Your task to perform on an android device: toggle airplane mode Image 0: 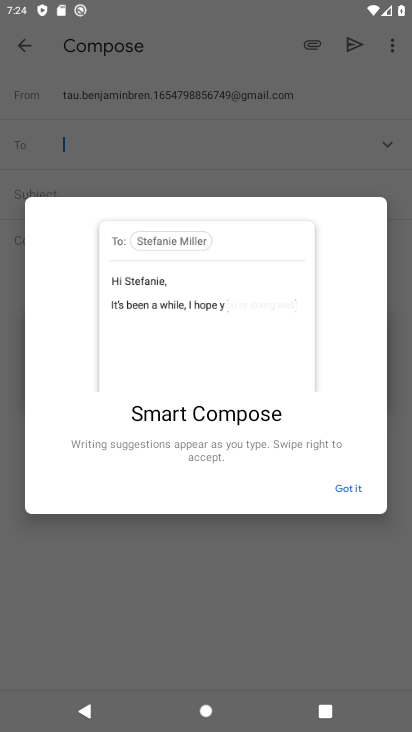
Step 0: press home button
Your task to perform on an android device: toggle airplane mode Image 1: 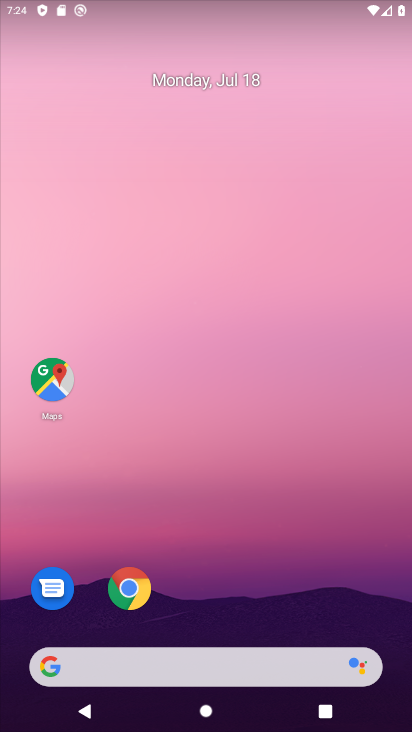
Step 1: drag from (217, 598) to (222, 257)
Your task to perform on an android device: toggle airplane mode Image 2: 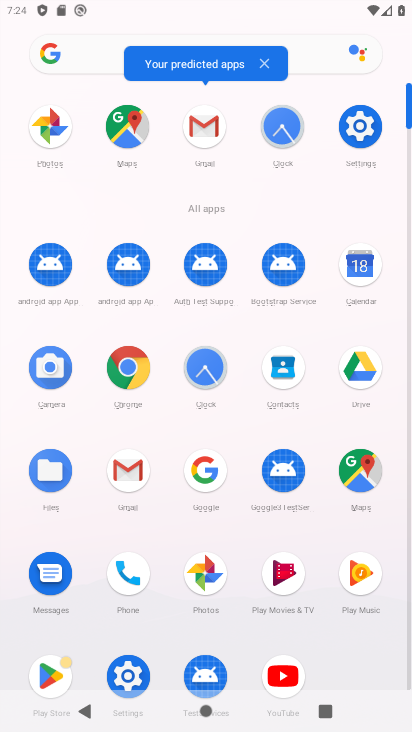
Step 2: click (364, 129)
Your task to perform on an android device: toggle airplane mode Image 3: 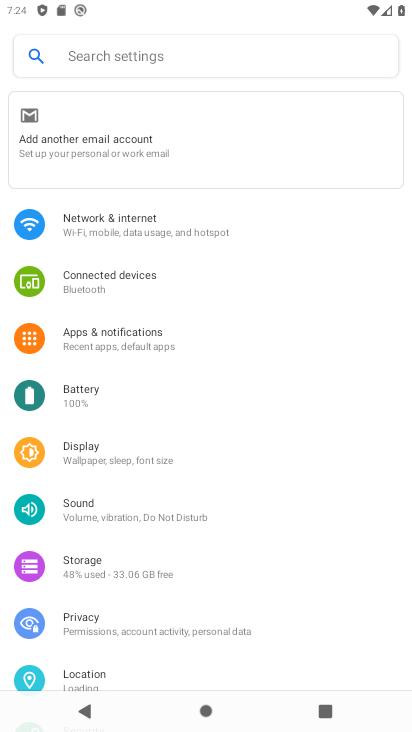
Step 3: click (142, 222)
Your task to perform on an android device: toggle airplane mode Image 4: 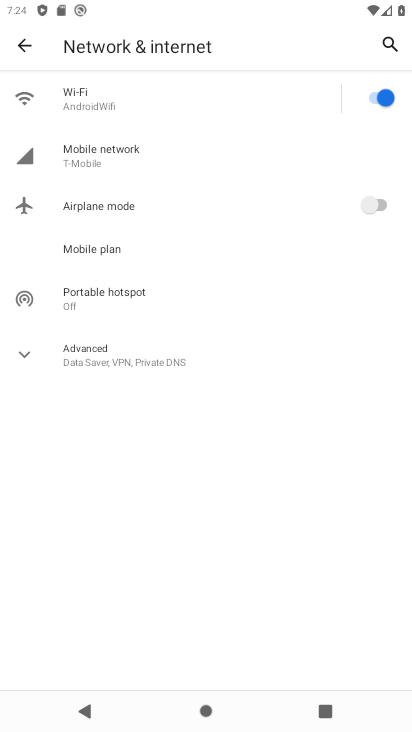
Step 4: click (205, 211)
Your task to perform on an android device: toggle airplane mode Image 5: 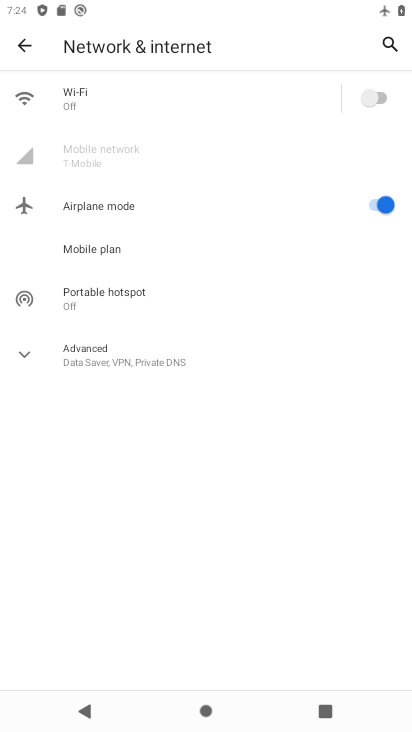
Step 5: task complete